Your task to perform on an android device: Open sound settings Image 0: 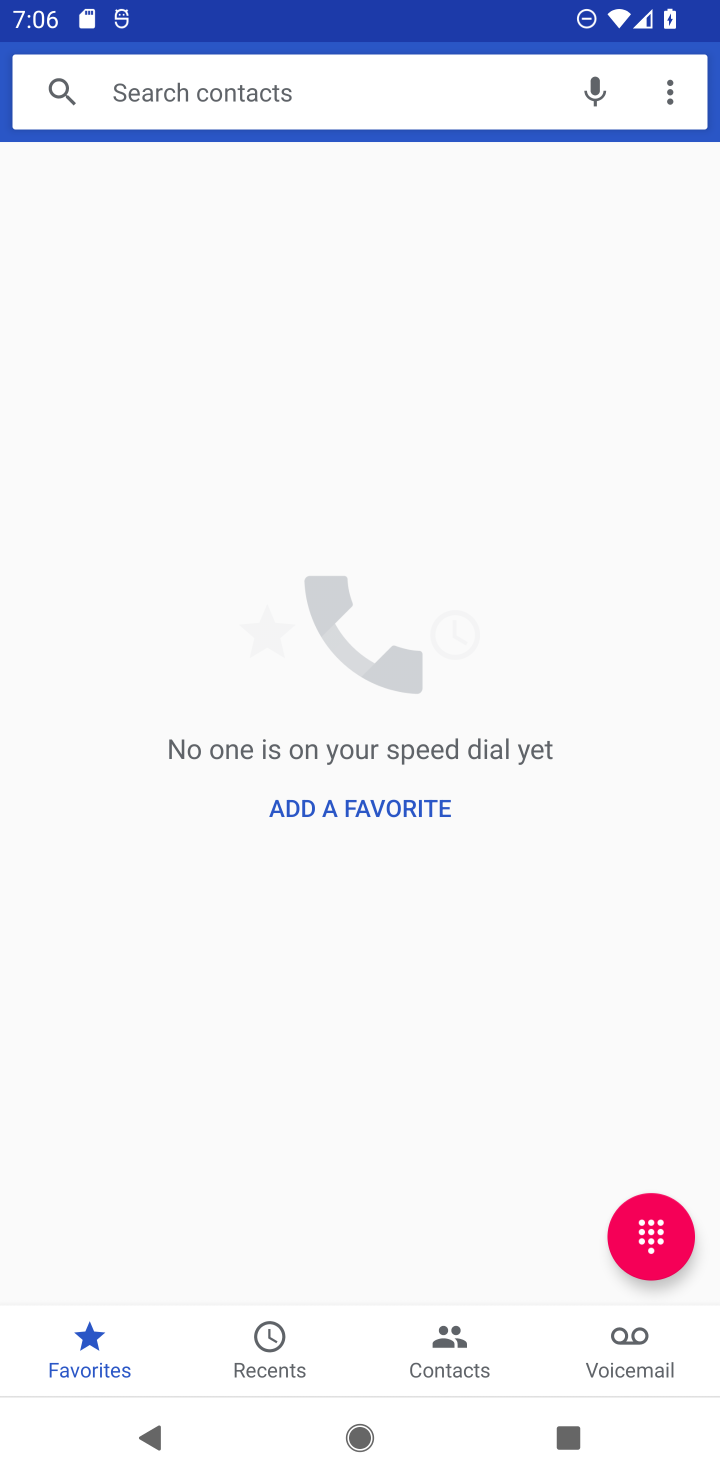
Step 0: press back button
Your task to perform on an android device: Open sound settings Image 1: 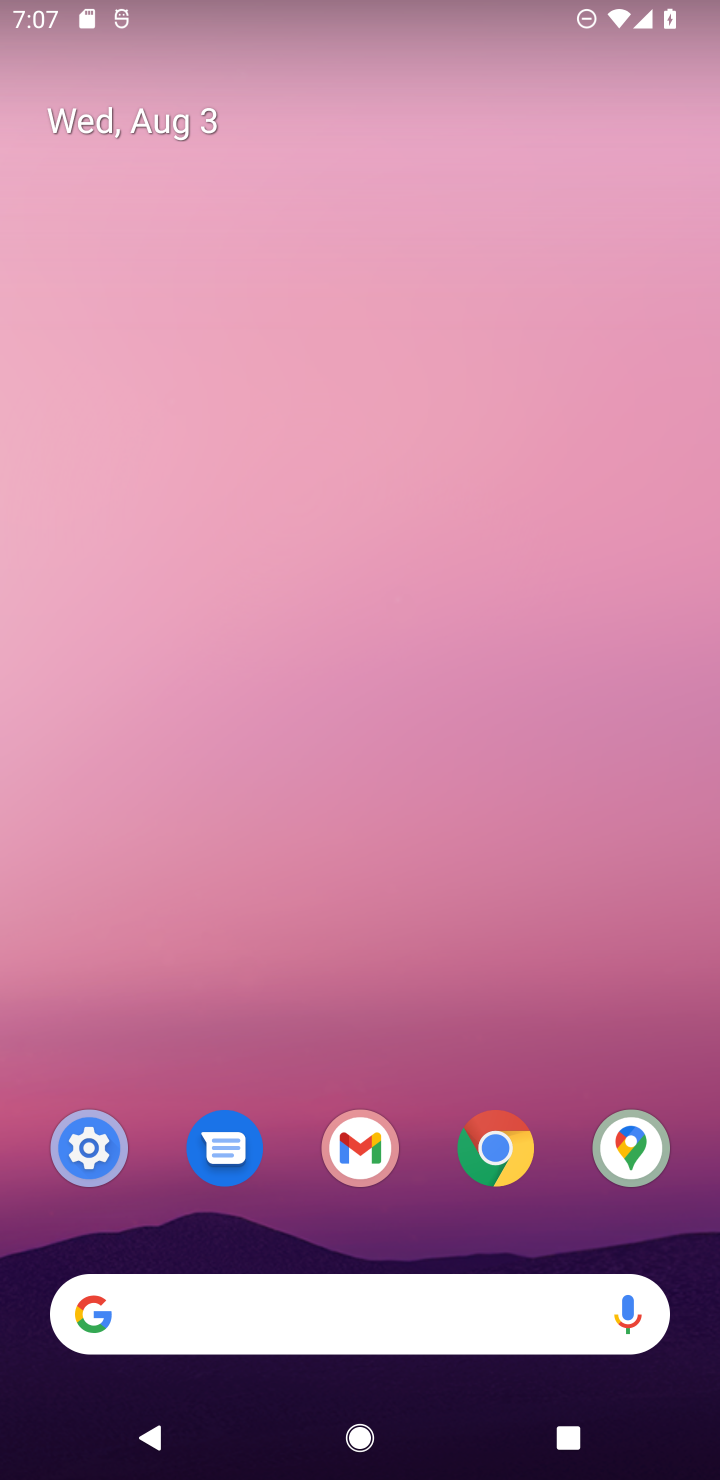
Step 1: click (78, 1143)
Your task to perform on an android device: Open sound settings Image 2: 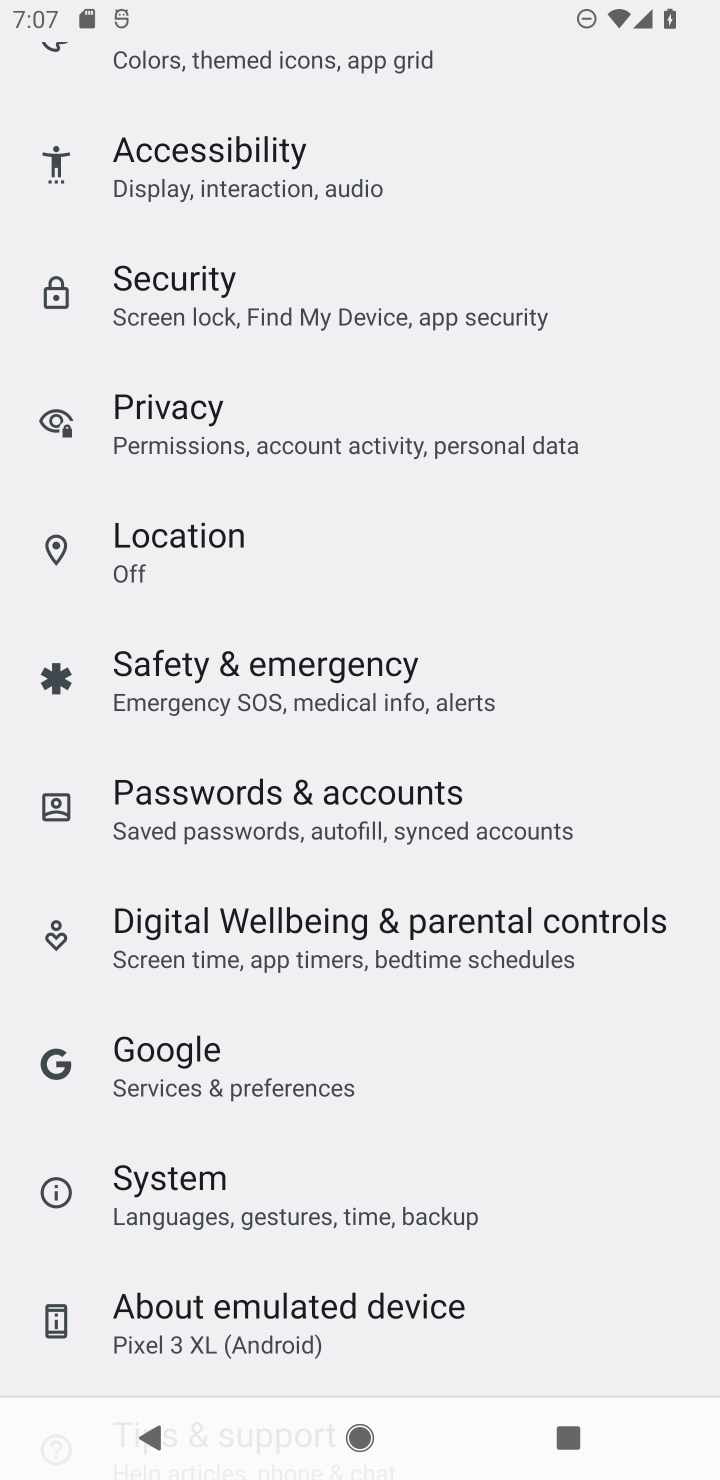
Step 2: drag from (289, 623) to (232, 1476)
Your task to perform on an android device: Open sound settings Image 3: 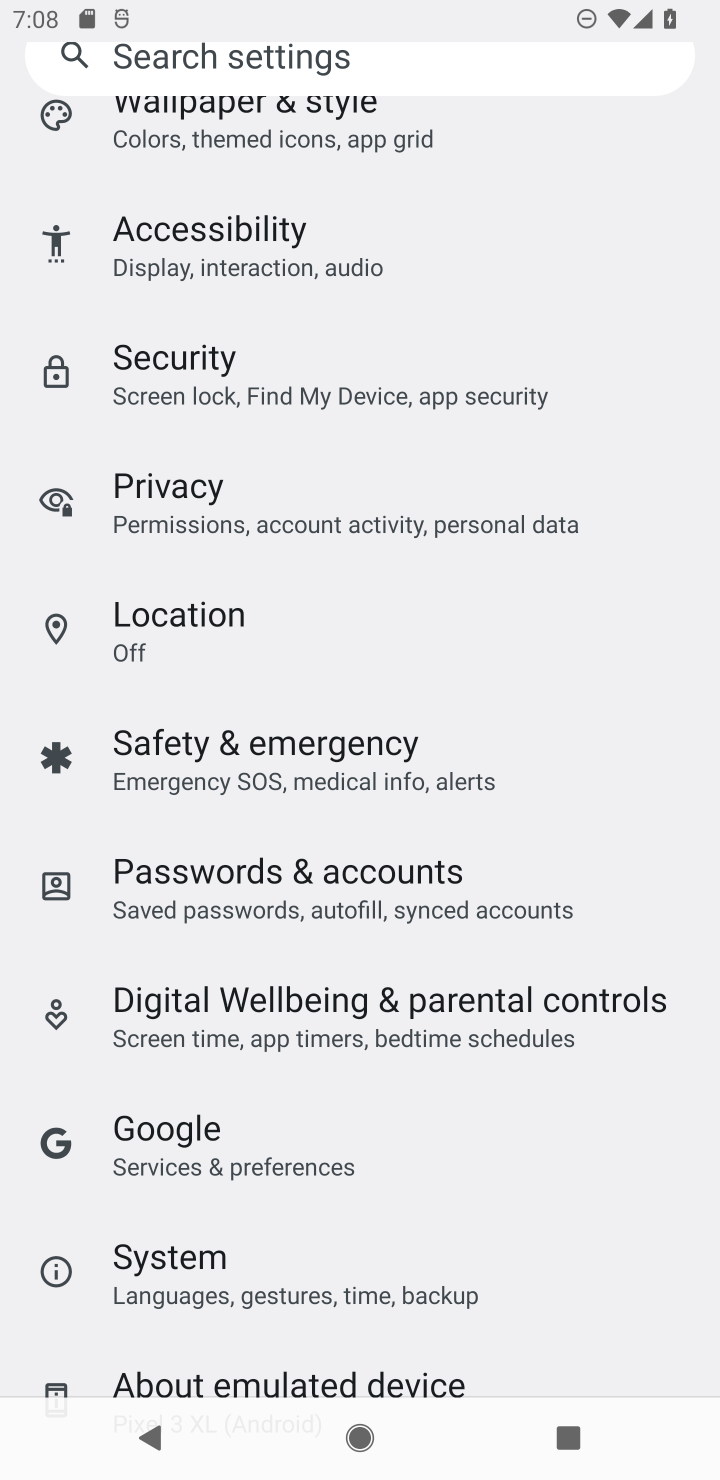
Step 3: drag from (349, 514) to (297, 1308)
Your task to perform on an android device: Open sound settings Image 4: 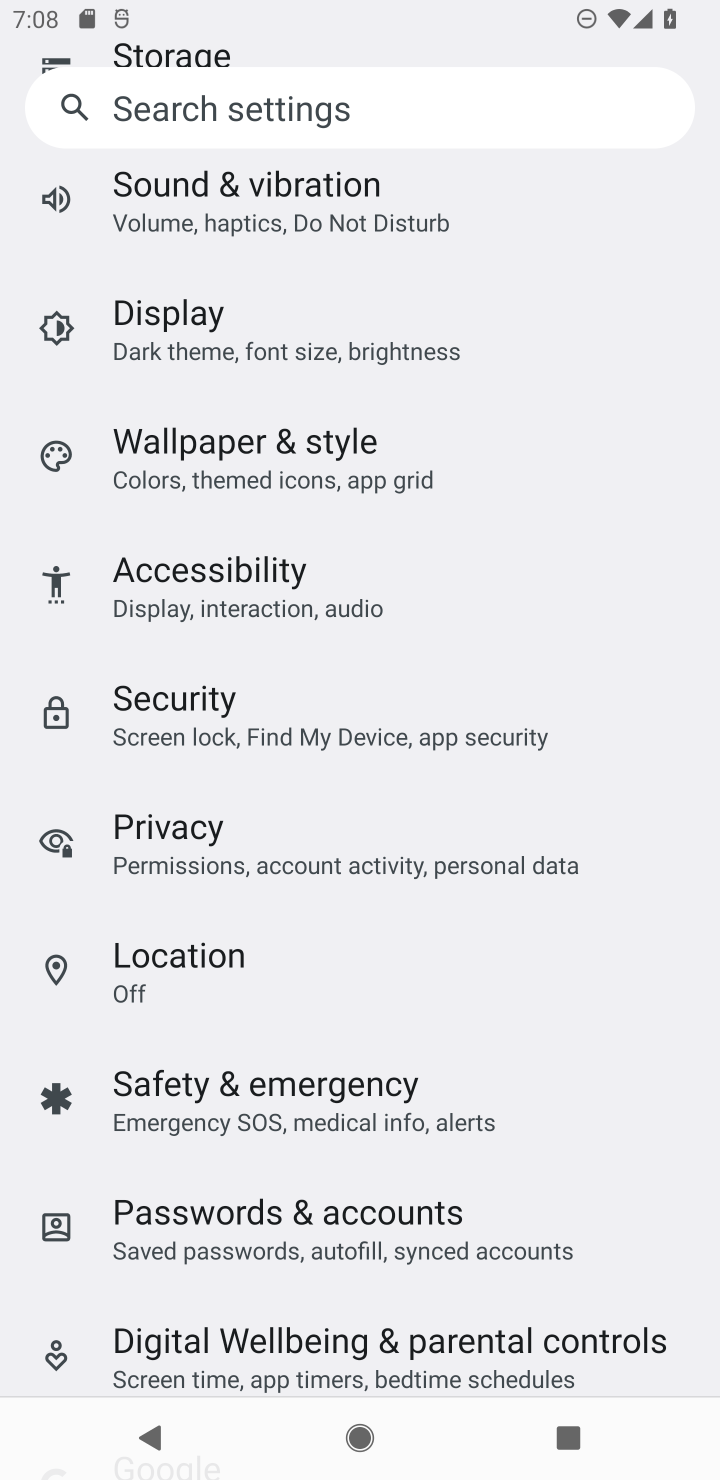
Step 4: click (230, 182)
Your task to perform on an android device: Open sound settings Image 5: 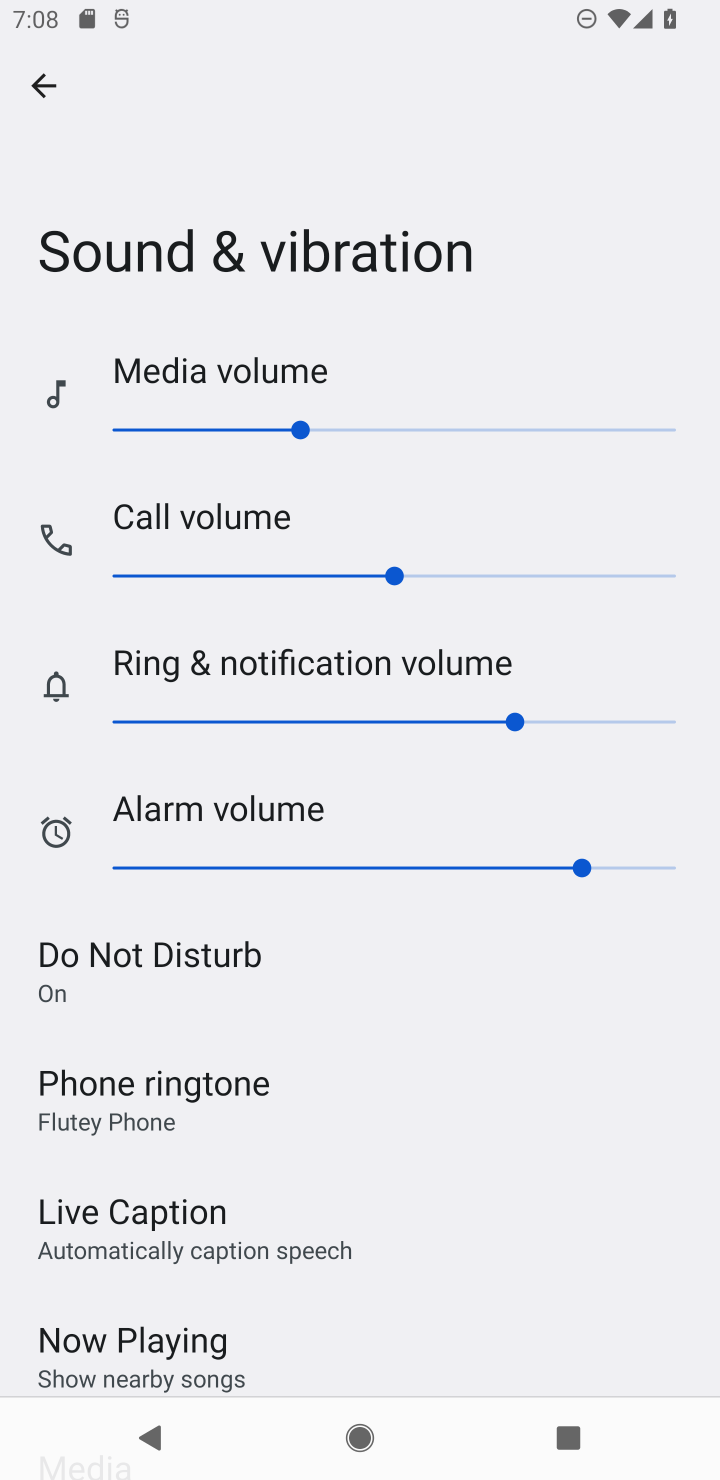
Step 5: task complete